Your task to perform on an android device: How much does a 3 bedroom apartment rent for in Houston? Image 0: 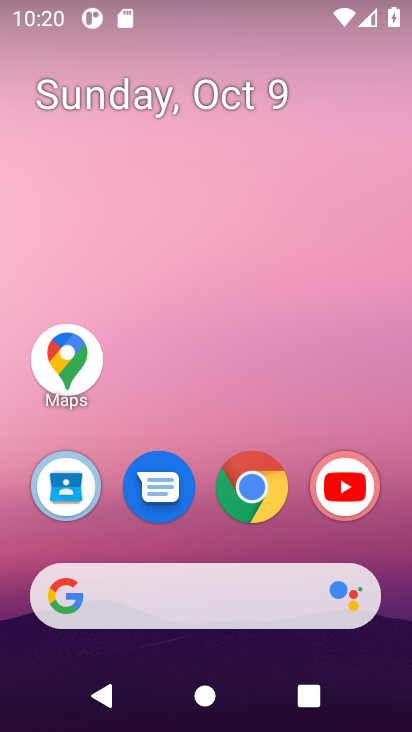
Step 0: click (257, 484)
Your task to perform on an android device: How much does a 3 bedroom apartment rent for in Houston? Image 1: 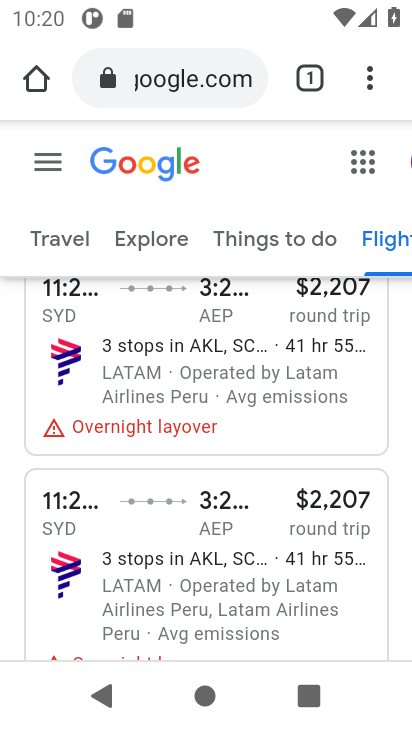
Step 1: click (179, 63)
Your task to perform on an android device: How much does a 3 bedroom apartment rent for in Houston? Image 2: 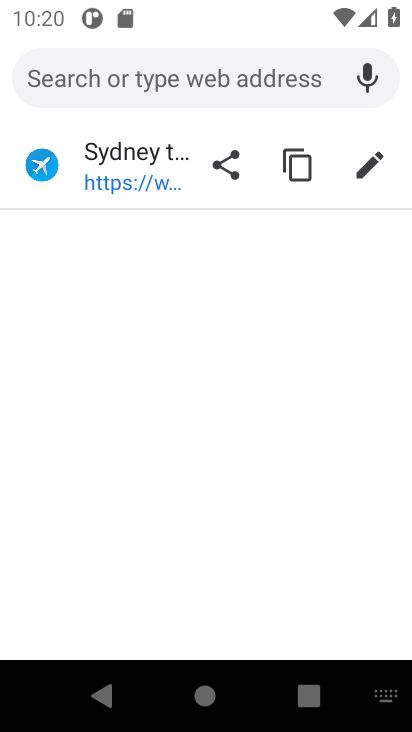
Step 2: type "3 bedroom apartment rent in houston"
Your task to perform on an android device: How much does a 3 bedroom apartment rent for in Houston? Image 3: 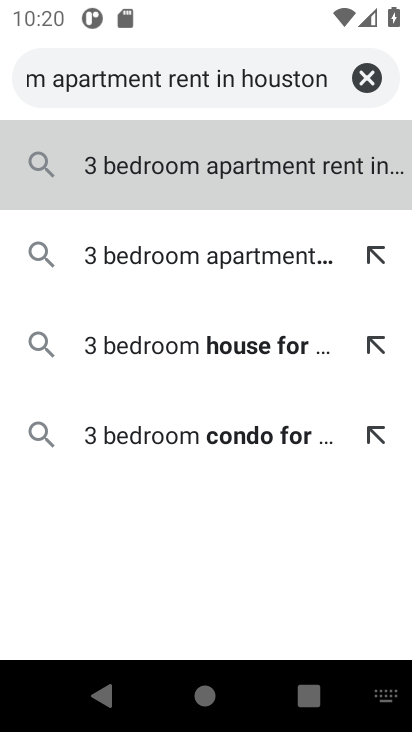
Step 3: press enter
Your task to perform on an android device: How much does a 3 bedroom apartment rent for in Houston? Image 4: 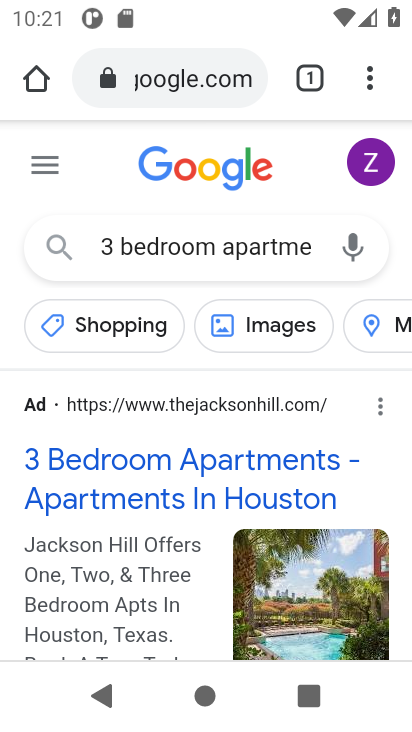
Step 4: drag from (192, 469) to (197, 152)
Your task to perform on an android device: How much does a 3 bedroom apartment rent for in Houston? Image 5: 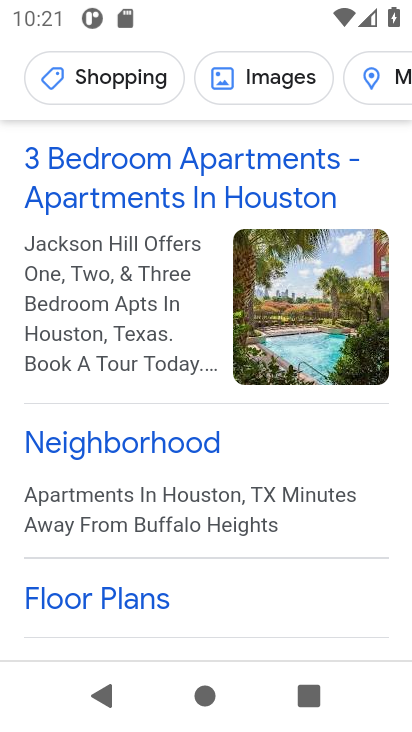
Step 5: drag from (179, 529) to (189, 157)
Your task to perform on an android device: How much does a 3 bedroom apartment rent for in Houston? Image 6: 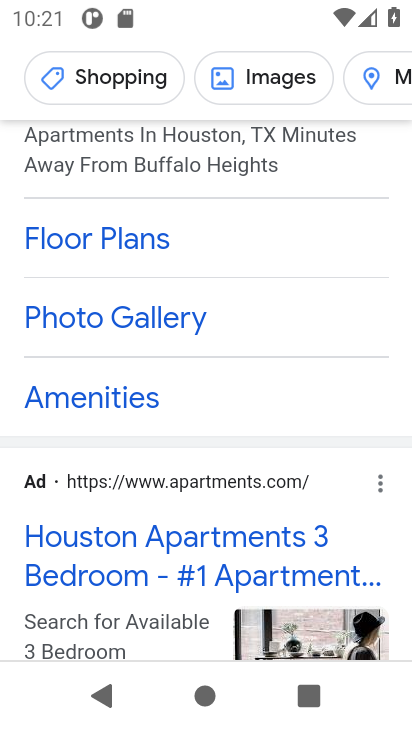
Step 6: click (176, 567)
Your task to perform on an android device: How much does a 3 bedroom apartment rent for in Houston? Image 7: 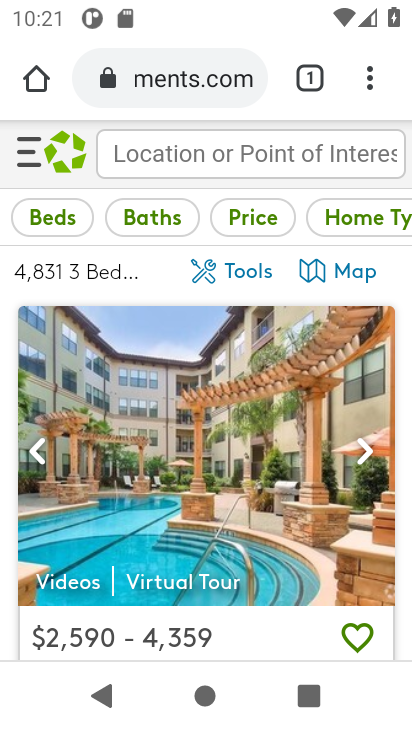
Step 7: drag from (130, 637) to (148, 224)
Your task to perform on an android device: How much does a 3 bedroom apartment rent for in Houston? Image 8: 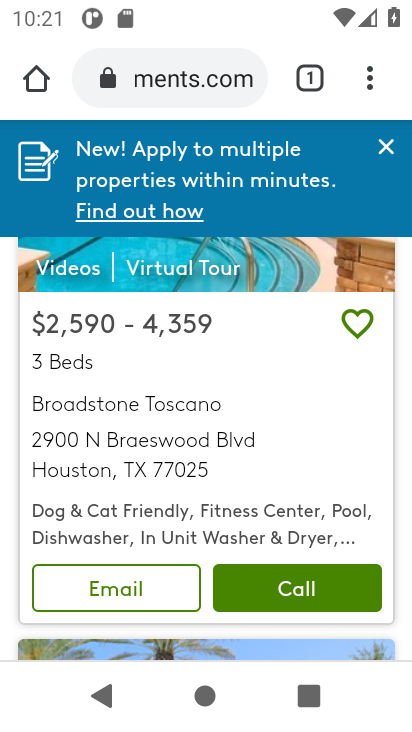
Step 8: drag from (204, 528) to (179, 181)
Your task to perform on an android device: How much does a 3 bedroom apartment rent for in Houston? Image 9: 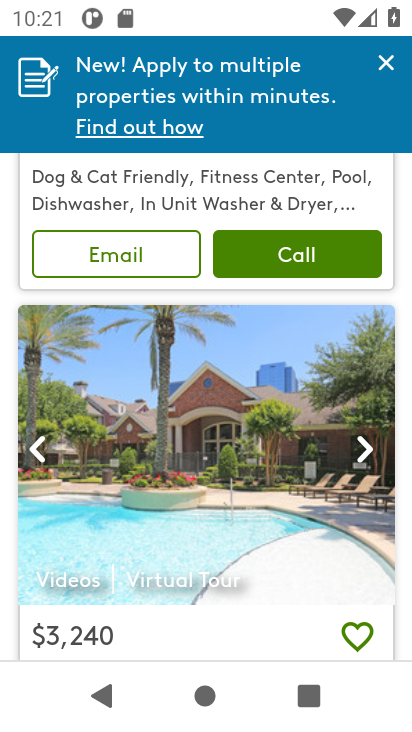
Step 9: click (393, 67)
Your task to perform on an android device: How much does a 3 bedroom apartment rent for in Houston? Image 10: 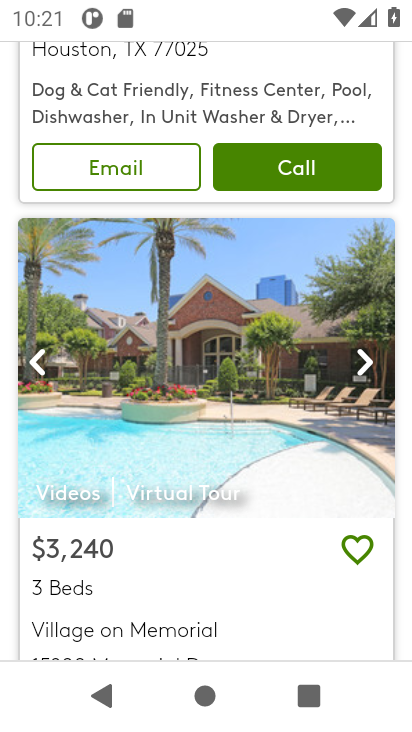
Step 10: task complete